Your task to perform on an android device: Go to Maps Image 0: 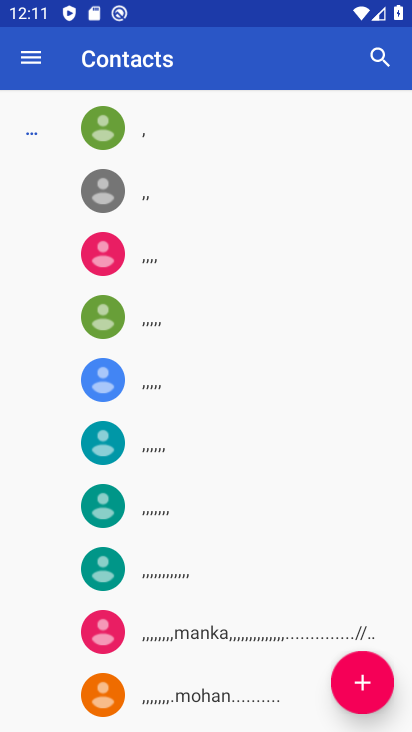
Step 0: press home button
Your task to perform on an android device: Go to Maps Image 1: 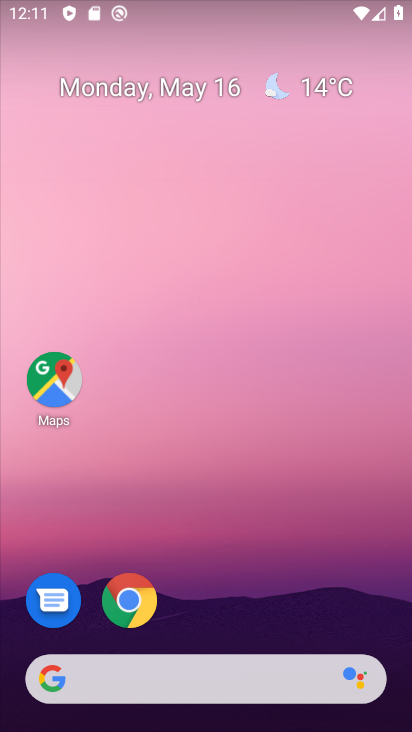
Step 1: click (54, 377)
Your task to perform on an android device: Go to Maps Image 2: 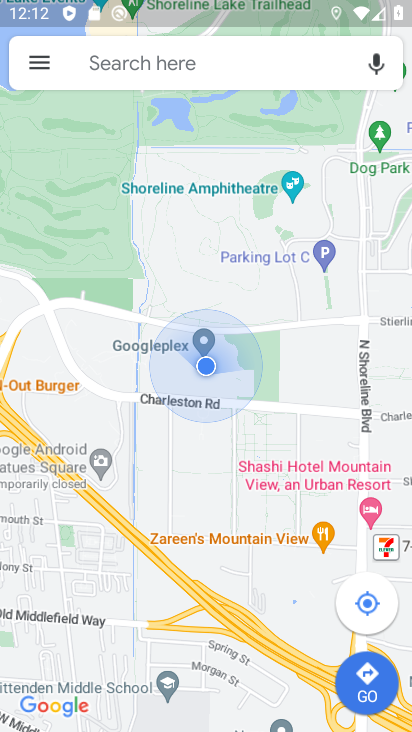
Step 2: task complete